Your task to perform on an android device: Search for flights from Barcelona to Boston Image 0: 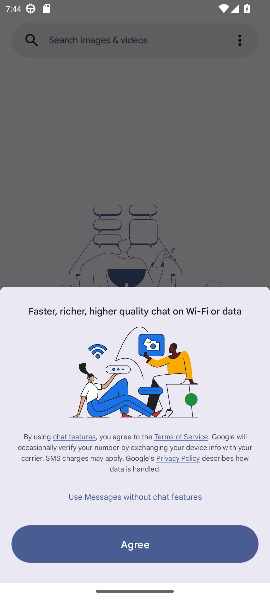
Step 0: press home button
Your task to perform on an android device: Search for flights from Barcelona to Boston Image 1: 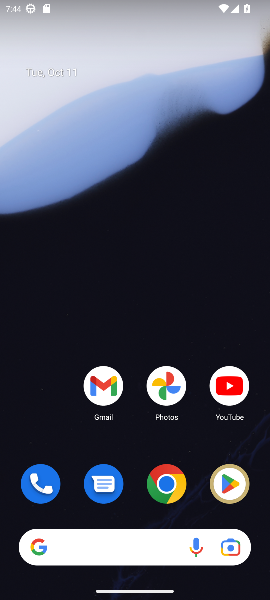
Step 1: click (167, 485)
Your task to perform on an android device: Search for flights from Barcelona to Boston Image 2: 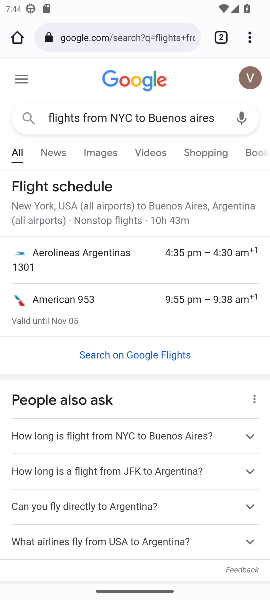
Step 2: click (153, 41)
Your task to perform on an android device: Search for flights from Barcelona to Boston Image 3: 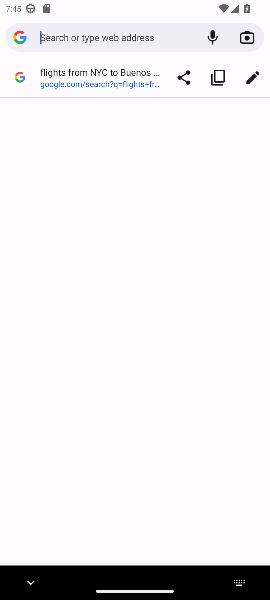
Step 3: type "flights from Barcelona to Boston"
Your task to perform on an android device: Search for flights from Barcelona to Boston Image 4: 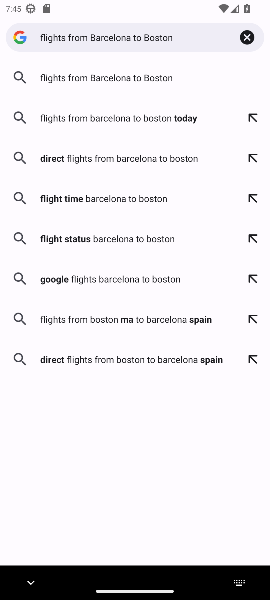
Step 4: click (81, 77)
Your task to perform on an android device: Search for flights from Barcelona to Boston Image 5: 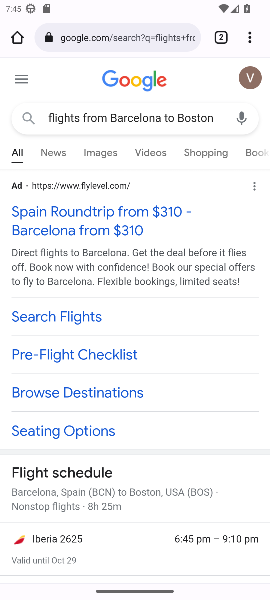
Step 5: drag from (128, 467) to (196, 279)
Your task to perform on an android device: Search for flights from Barcelona to Boston Image 6: 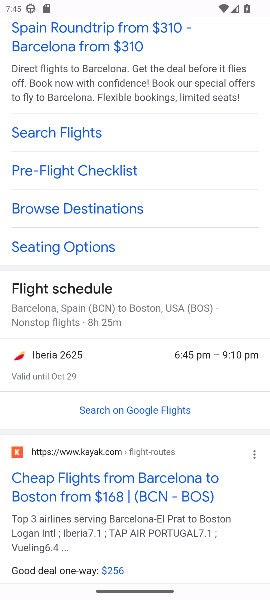
Step 6: click (119, 412)
Your task to perform on an android device: Search for flights from Barcelona to Boston Image 7: 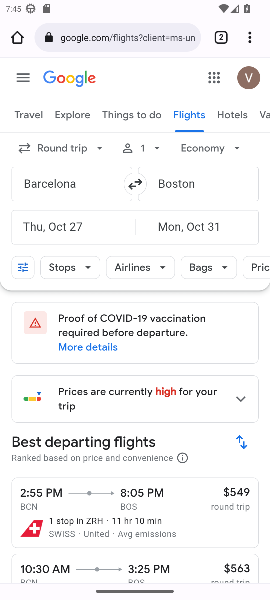
Step 7: task complete